Your task to perform on an android device: open chrome and create a bookmark for the current page Image 0: 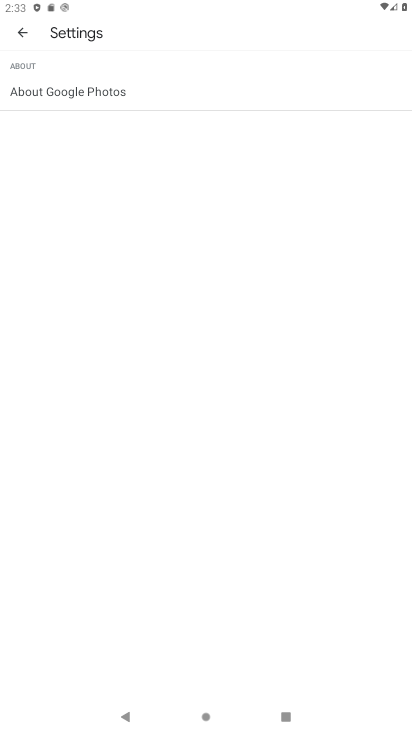
Step 0: press home button
Your task to perform on an android device: open chrome and create a bookmark for the current page Image 1: 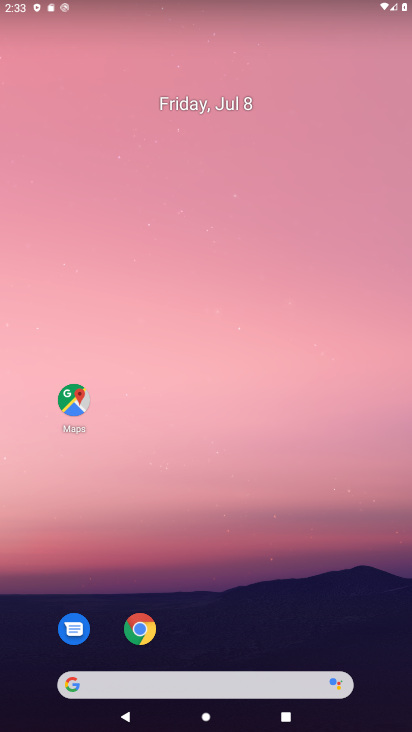
Step 1: click (140, 620)
Your task to perform on an android device: open chrome and create a bookmark for the current page Image 2: 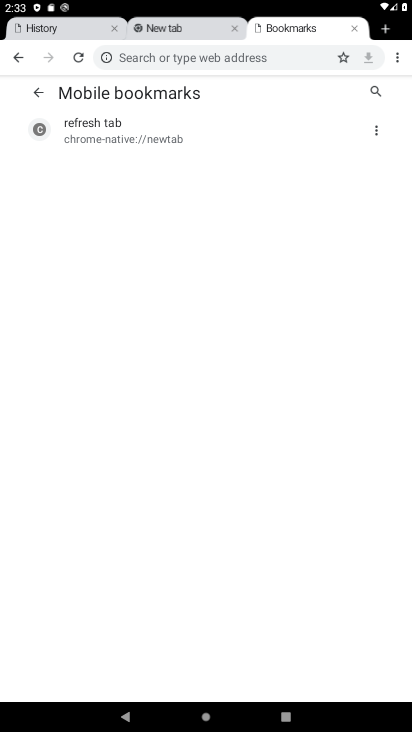
Step 2: click (15, 58)
Your task to perform on an android device: open chrome and create a bookmark for the current page Image 3: 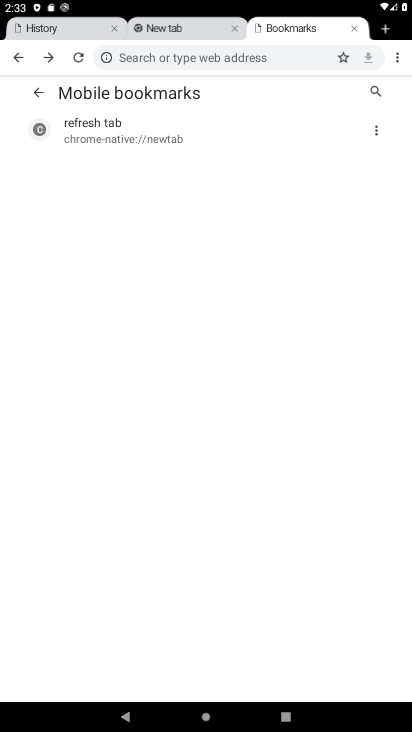
Step 3: click (342, 56)
Your task to perform on an android device: open chrome and create a bookmark for the current page Image 4: 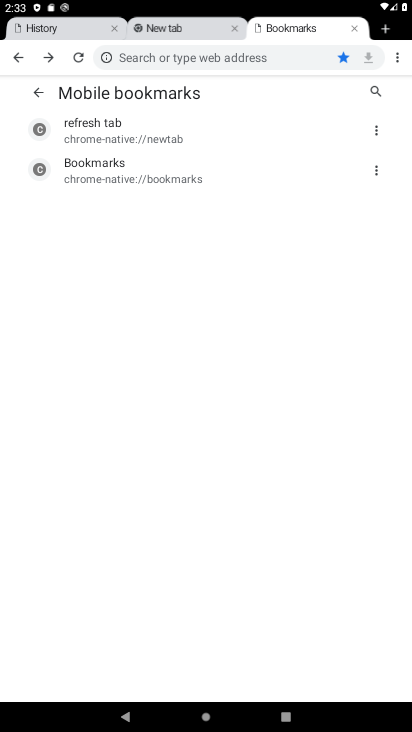
Step 4: task complete